Your task to perform on an android device: open app "NewsBreak: Local News & Alerts" (install if not already installed) Image 0: 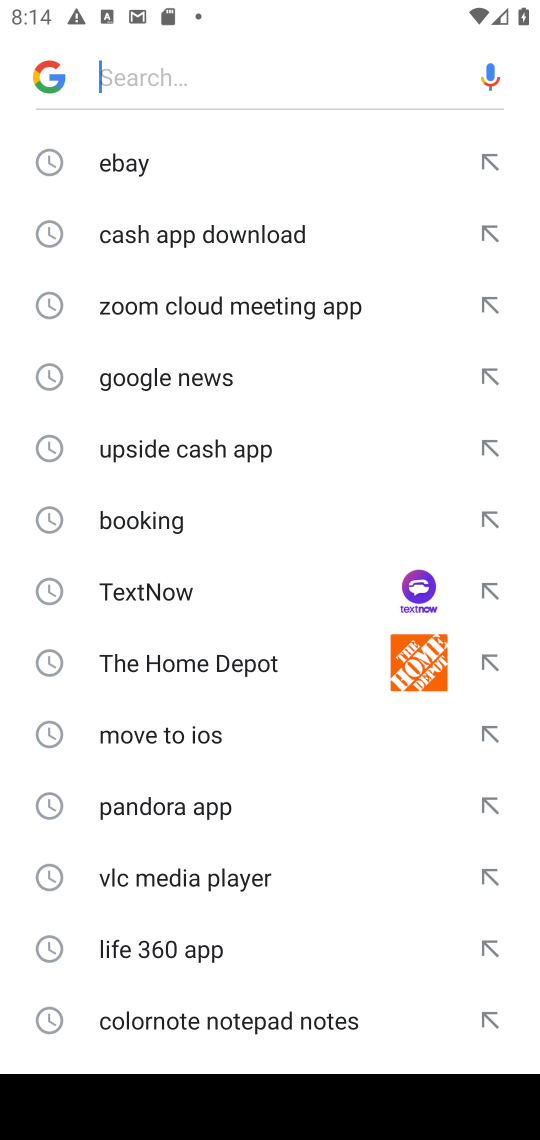
Step 0: type "NewsBreak: Local News & Alerts"
Your task to perform on an android device: open app "NewsBreak: Local News & Alerts" (install if not already installed) Image 1: 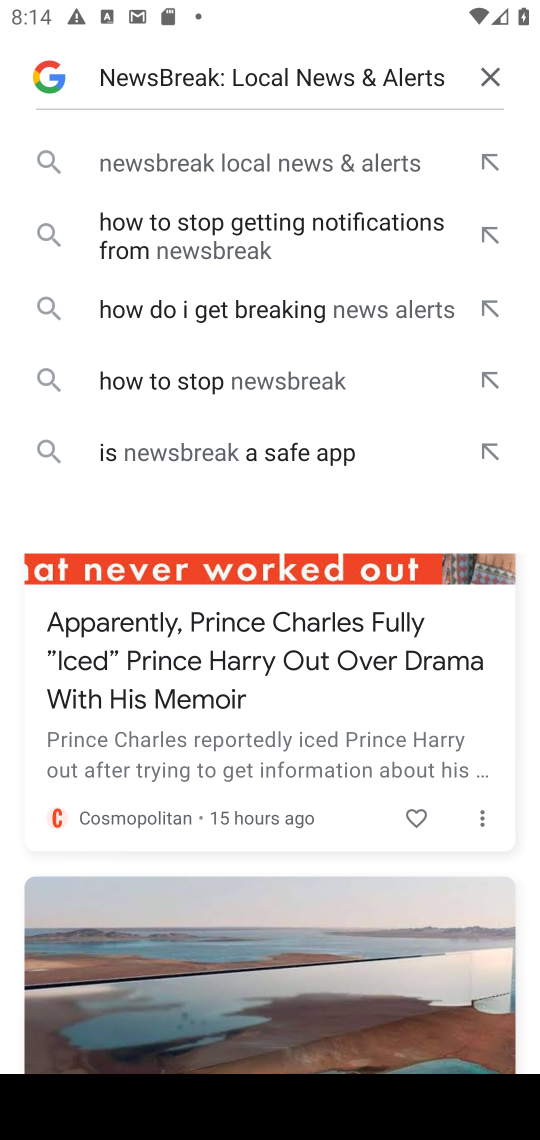
Step 1: click (297, 155)
Your task to perform on an android device: open app "NewsBreak: Local News & Alerts" (install if not already installed) Image 2: 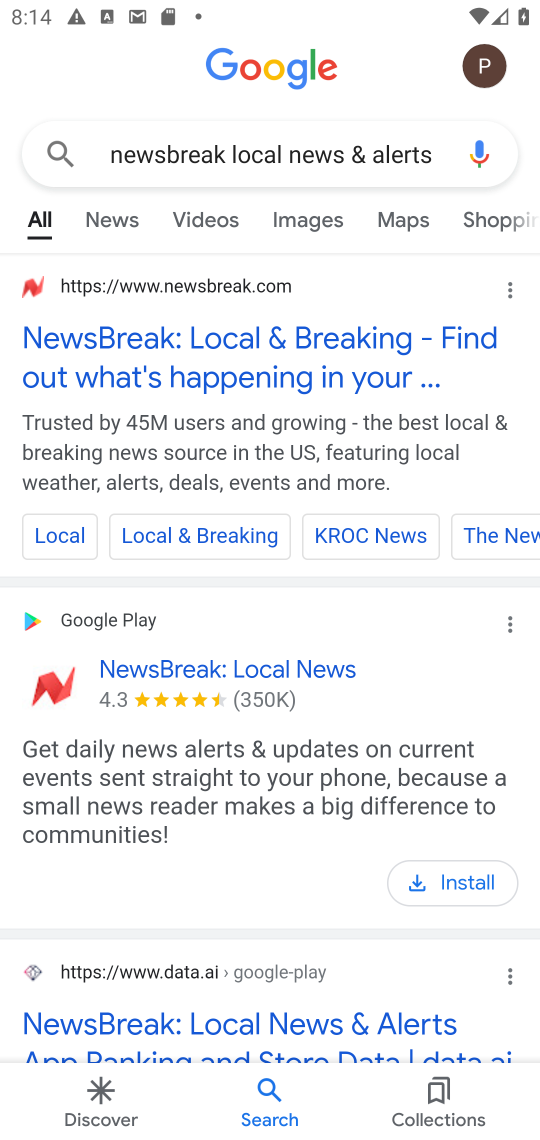
Step 2: press back button
Your task to perform on an android device: open app "NewsBreak: Local News & Alerts" (install if not already installed) Image 3: 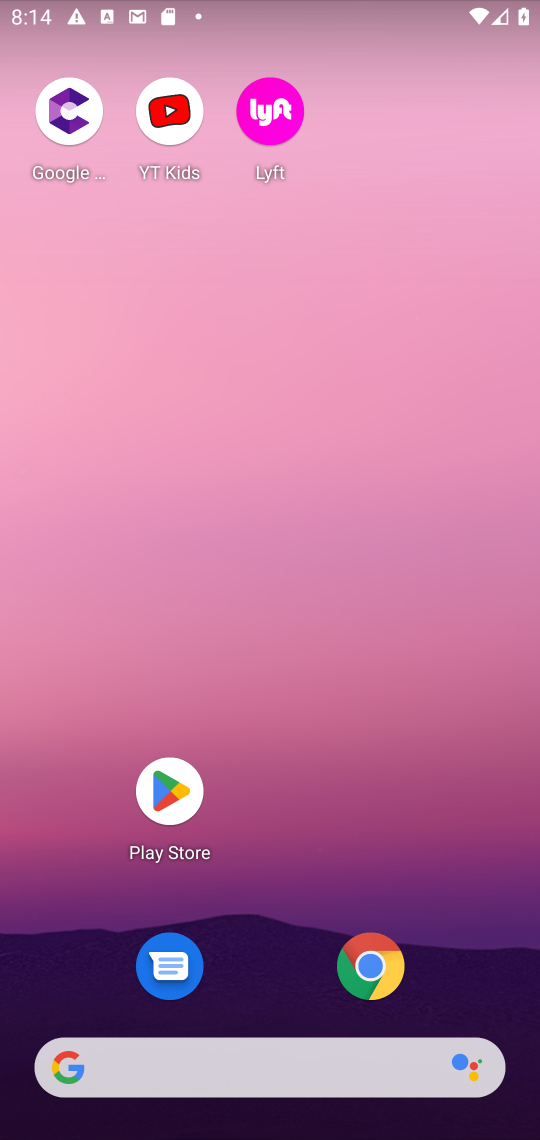
Step 3: click (177, 773)
Your task to perform on an android device: open app "NewsBreak: Local News & Alerts" (install if not already installed) Image 4: 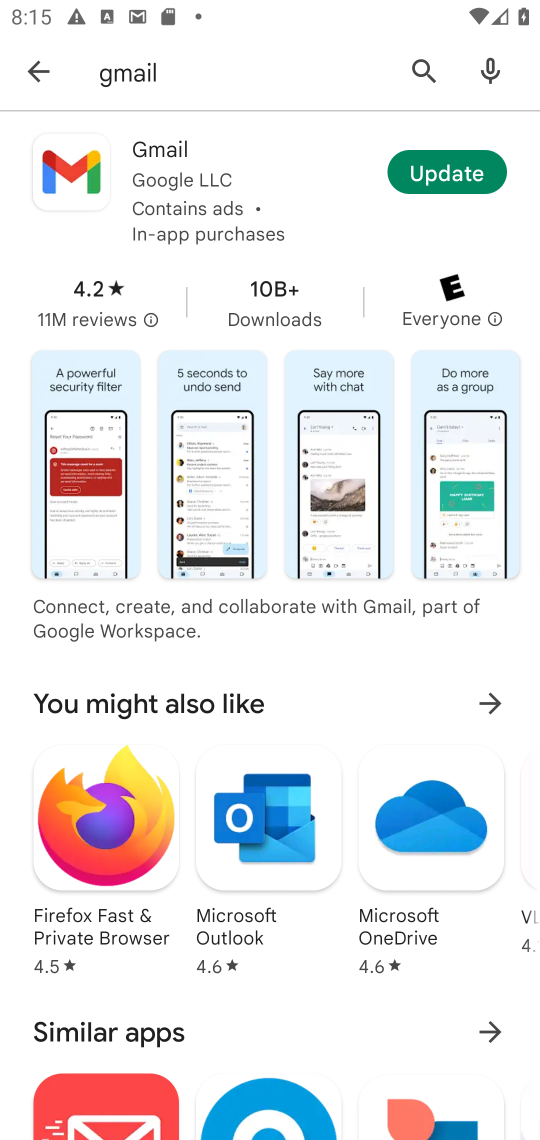
Step 4: click (421, 61)
Your task to perform on an android device: open app "NewsBreak: Local News & Alerts" (install if not already installed) Image 5: 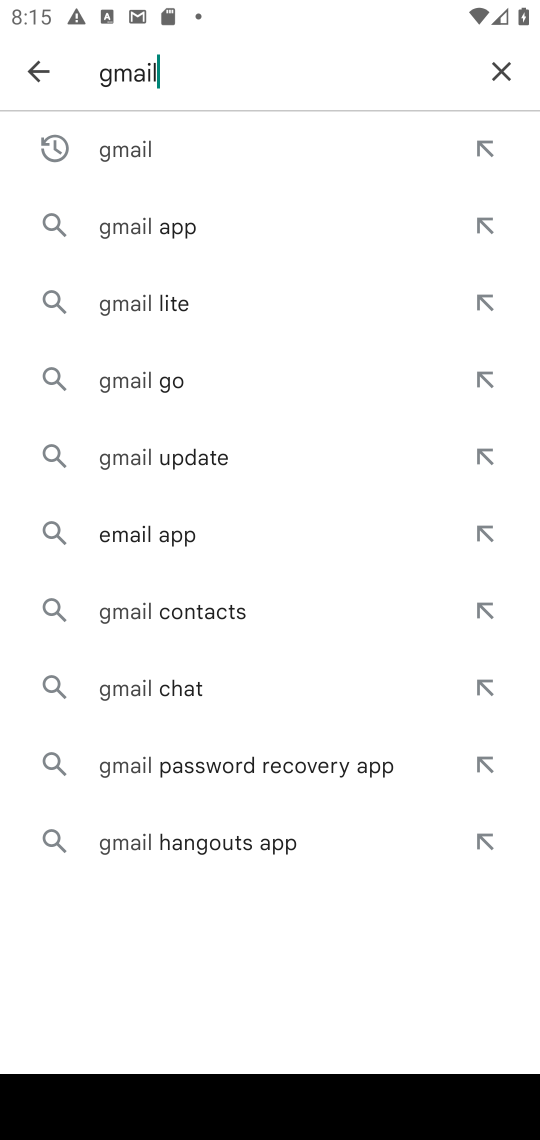
Step 5: click (499, 66)
Your task to perform on an android device: open app "NewsBreak: Local News & Alerts" (install if not already installed) Image 6: 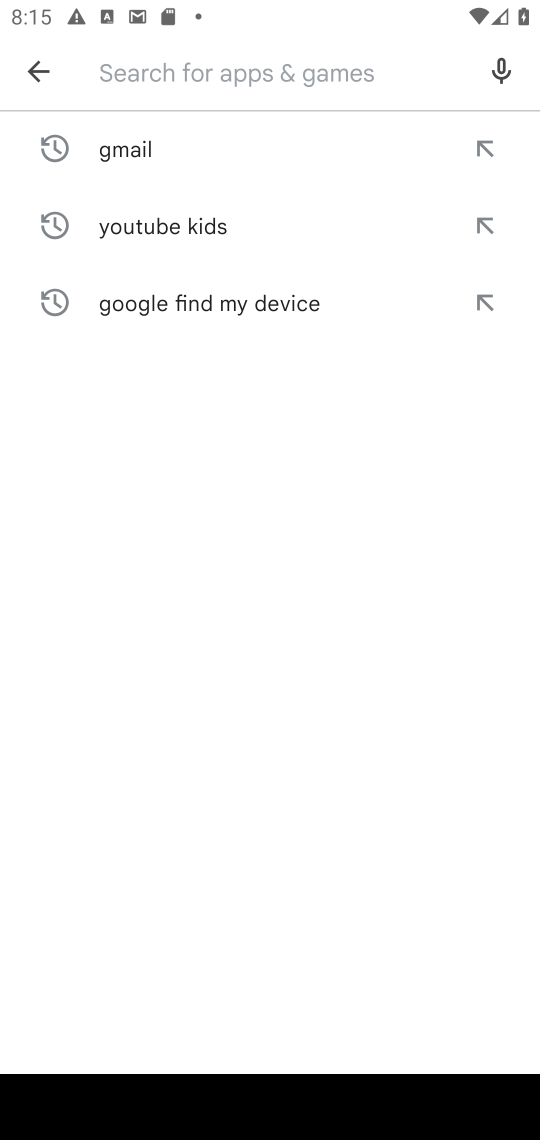
Step 6: type "NewsBreak: Local News & Alerts"
Your task to perform on an android device: open app "NewsBreak: Local News & Alerts" (install if not already installed) Image 7: 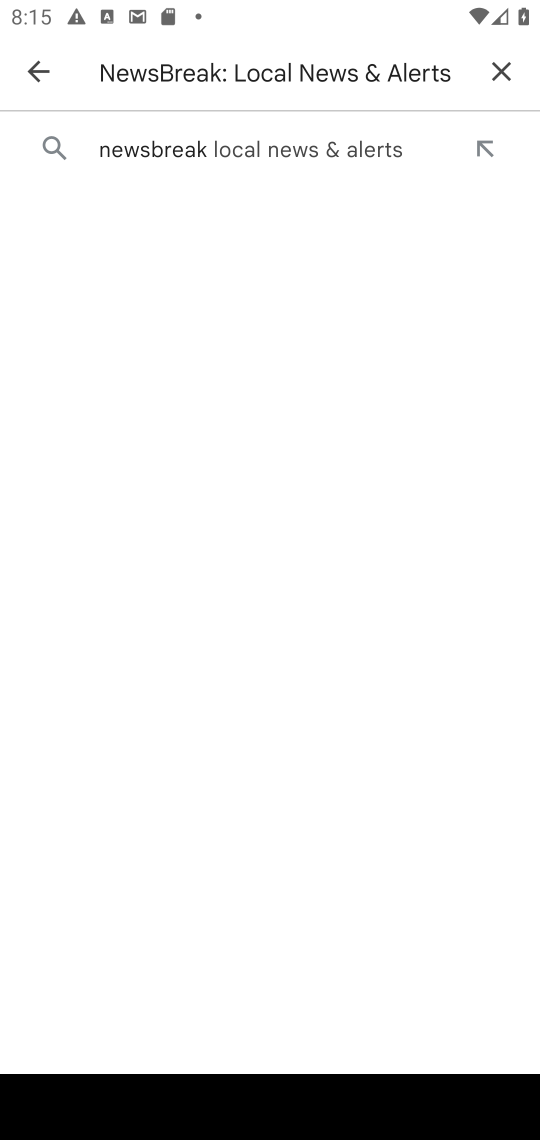
Step 7: click (235, 148)
Your task to perform on an android device: open app "NewsBreak: Local News & Alerts" (install if not already installed) Image 8: 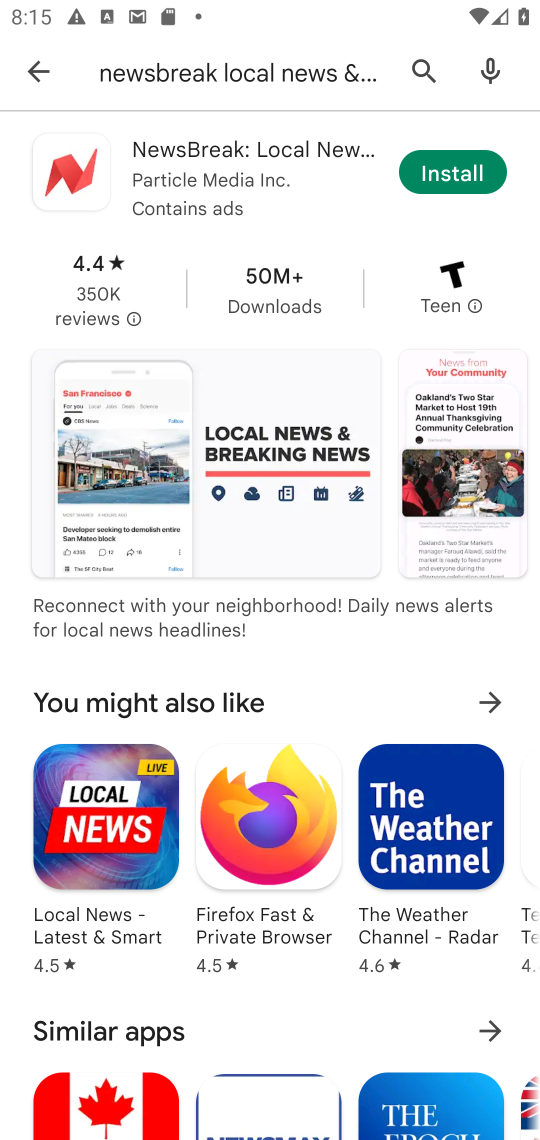
Step 8: click (441, 167)
Your task to perform on an android device: open app "NewsBreak: Local News & Alerts" (install if not already installed) Image 9: 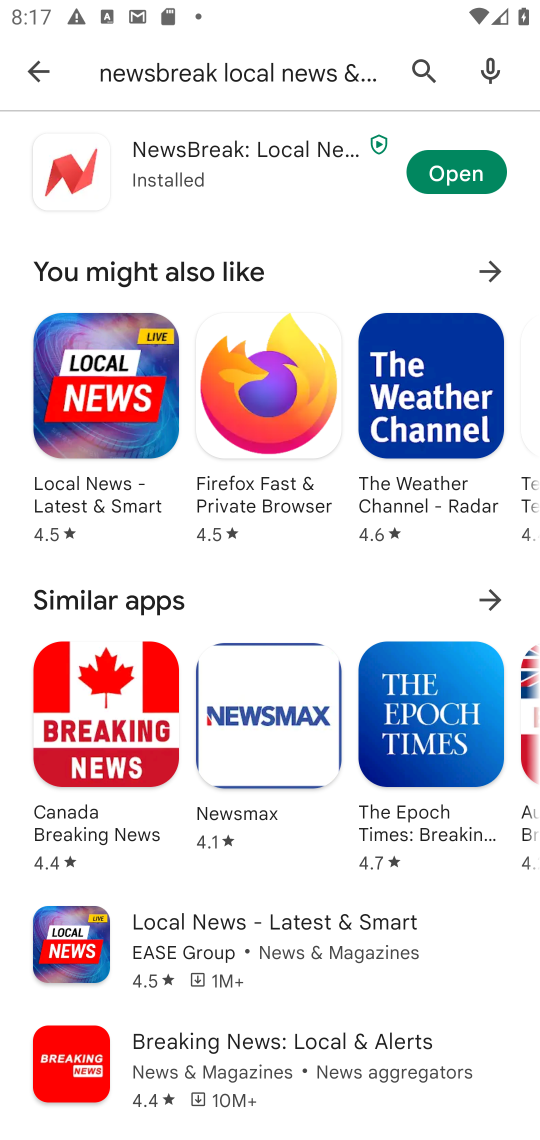
Step 9: click (470, 166)
Your task to perform on an android device: open app "NewsBreak: Local News & Alerts" (install if not already installed) Image 10: 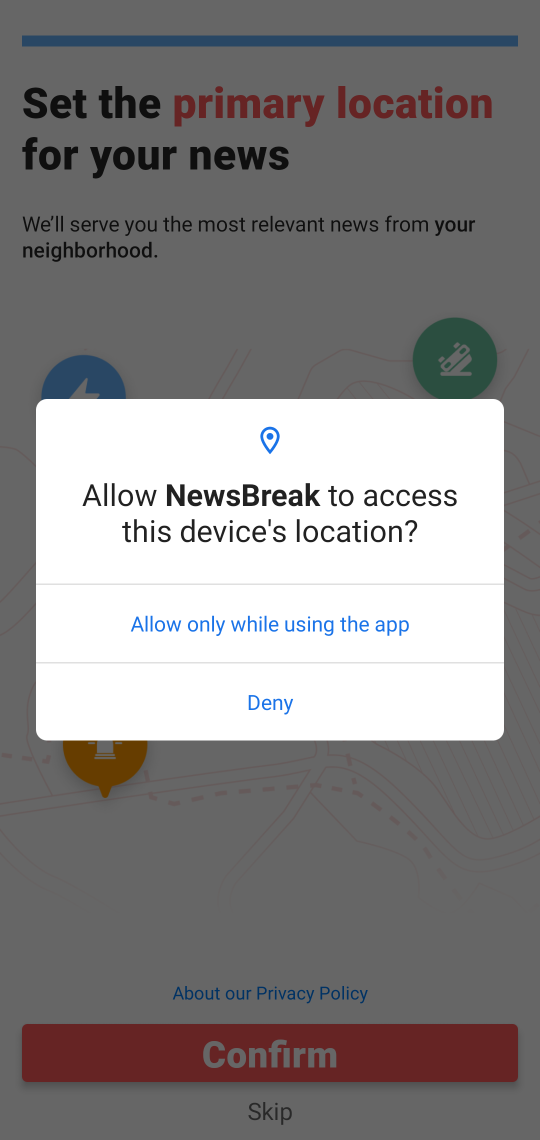
Step 10: click (267, 701)
Your task to perform on an android device: open app "NewsBreak: Local News & Alerts" (install if not already installed) Image 11: 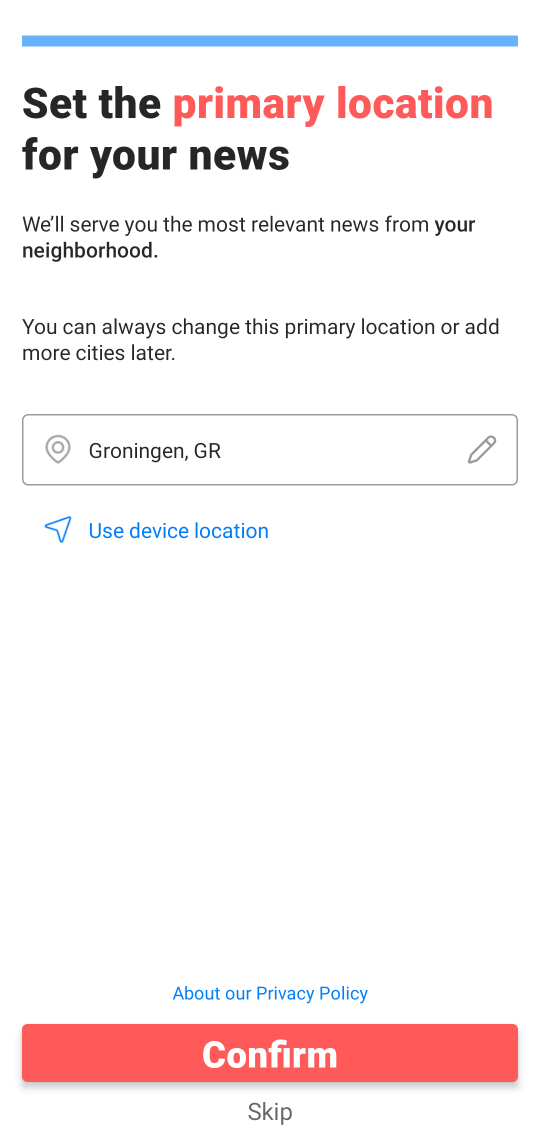
Step 11: task complete